Your task to perform on an android device: change the clock display to digital Image 0: 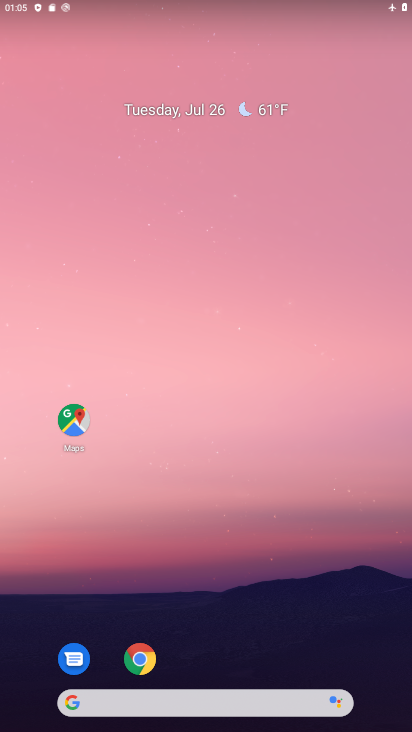
Step 0: drag from (292, 534) to (245, 197)
Your task to perform on an android device: change the clock display to digital Image 1: 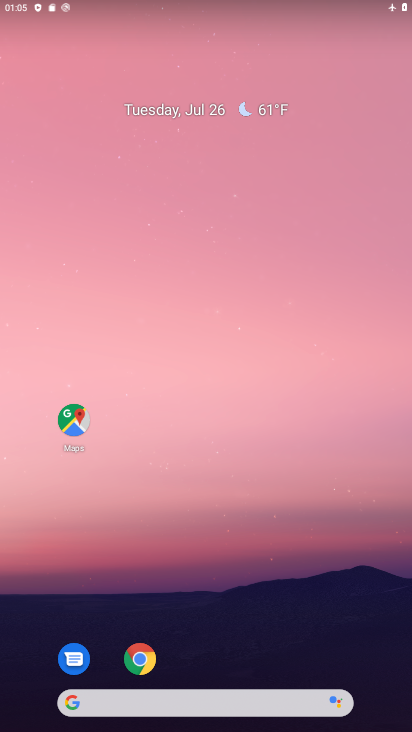
Step 1: drag from (261, 699) to (203, 41)
Your task to perform on an android device: change the clock display to digital Image 2: 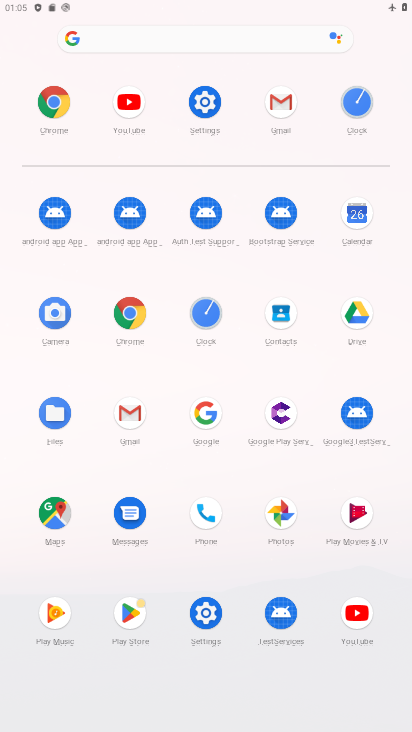
Step 2: click (213, 312)
Your task to perform on an android device: change the clock display to digital Image 3: 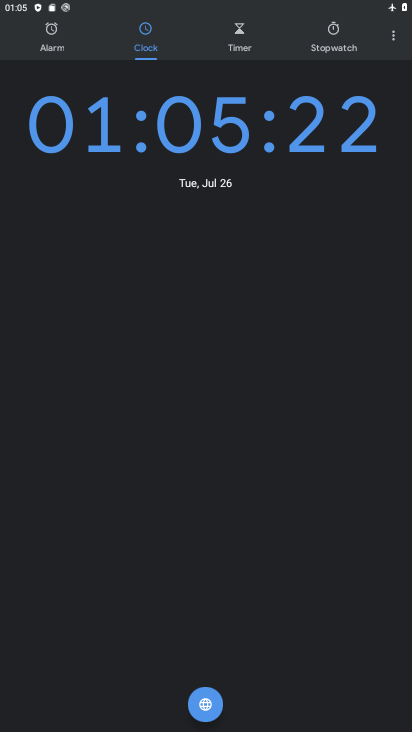
Step 3: click (402, 40)
Your task to perform on an android device: change the clock display to digital Image 4: 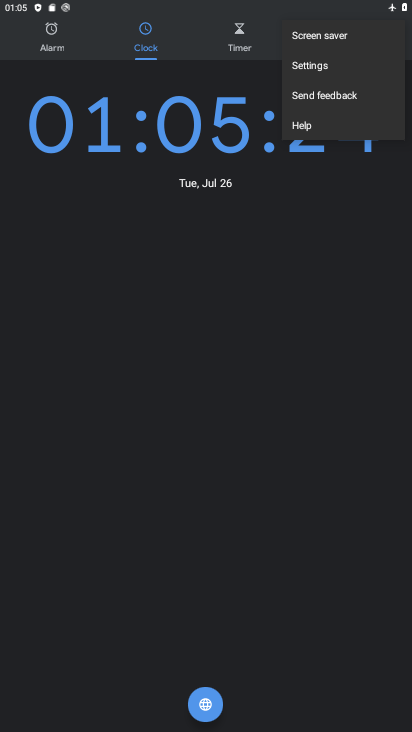
Step 4: click (327, 72)
Your task to perform on an android device: change the clock display to digital Image 5: 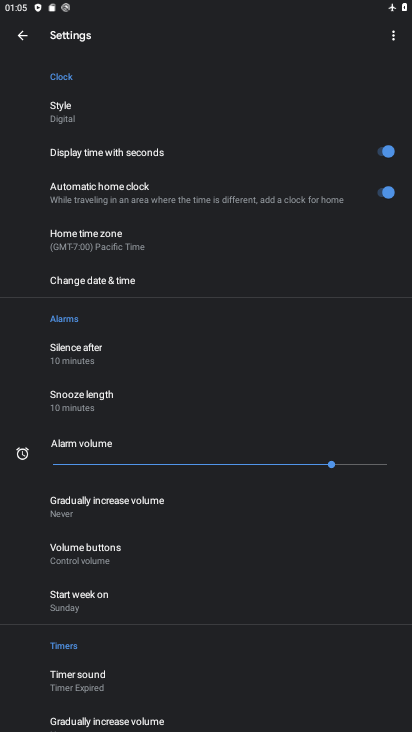
Step 5: task complete